Your task to perform on an android device: Google the capital of Uruguay Image 0: 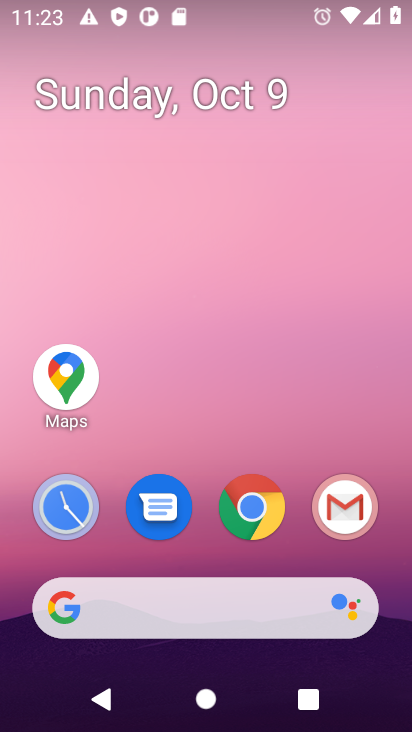
Step 0: press home button
Your task to perform on an android device: Google the capital of Uruguay Image 1: 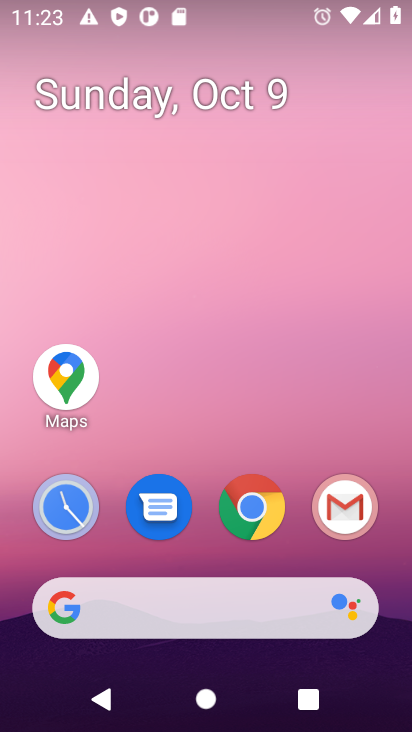
Step 1: click (284, 601)
Your task to perform on an android device: Google the capital of Uruguay Image 2: 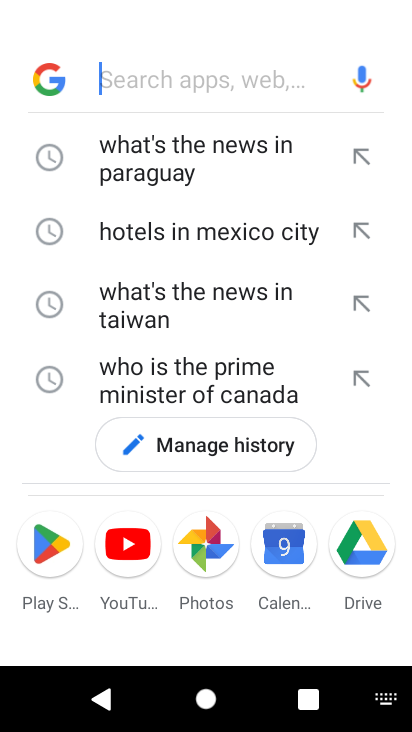
Step 2: type "Google the capital of Uruguay"
Your task to perform on an android device: Google the capital of Uruguay Image 3: 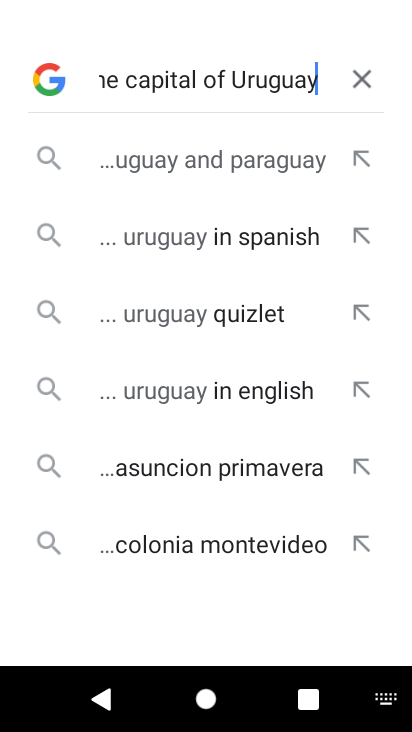
Step 3: press enter
Your task to perform on an android device: Google the capital of Uruguay Image 4: 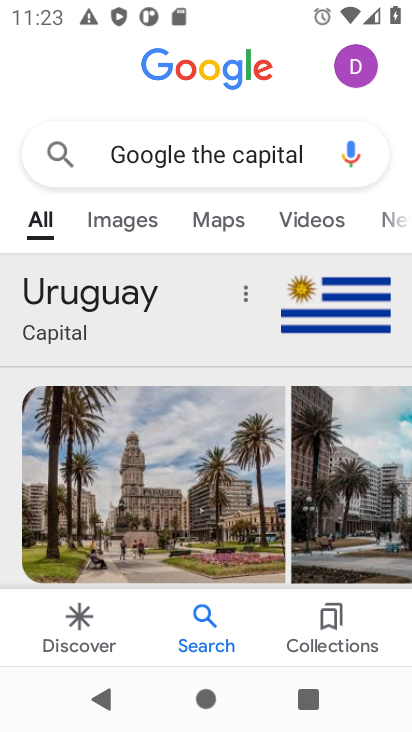
Step 4: task complete